Your task to perform on an android device: Go to network settings Image 0: 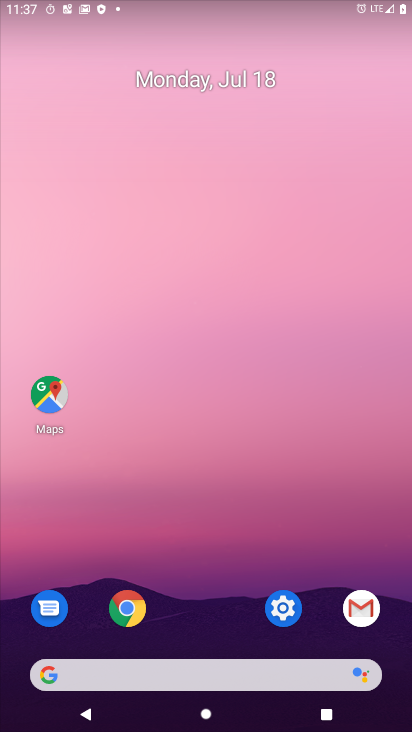
Step 0: click (285, 608)
Your task to perform on an android device: Go to network settings Image 1: 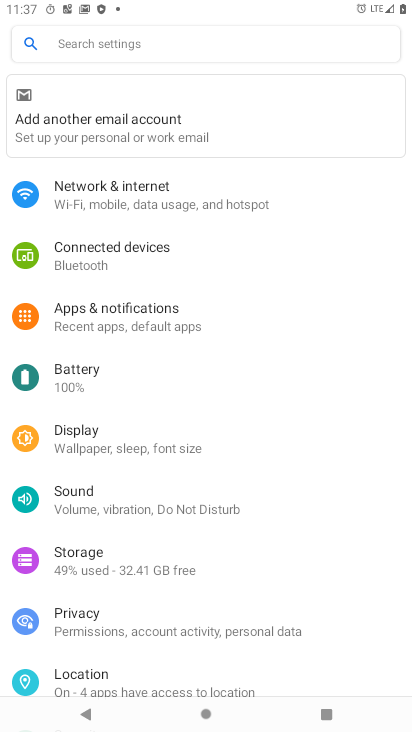
Step 1: click (136, 184)
Your task to perform on an android device: Go to network settings Image 2: 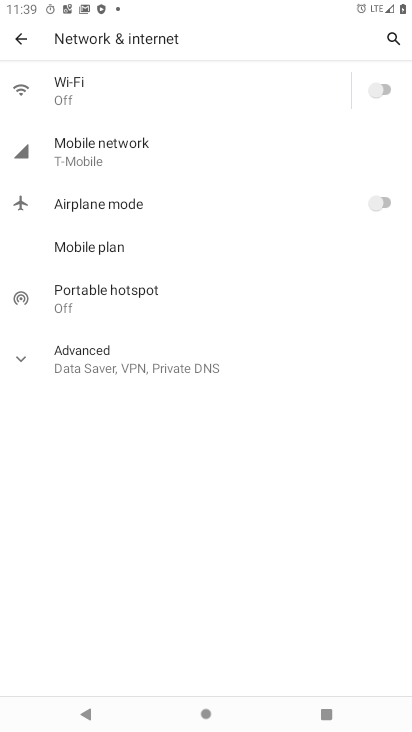
Step 2: task complete